Your task to perform on an android device: open app "eBay: The shopping marketplace" (install if not already installed) and go to login screen Image 0: 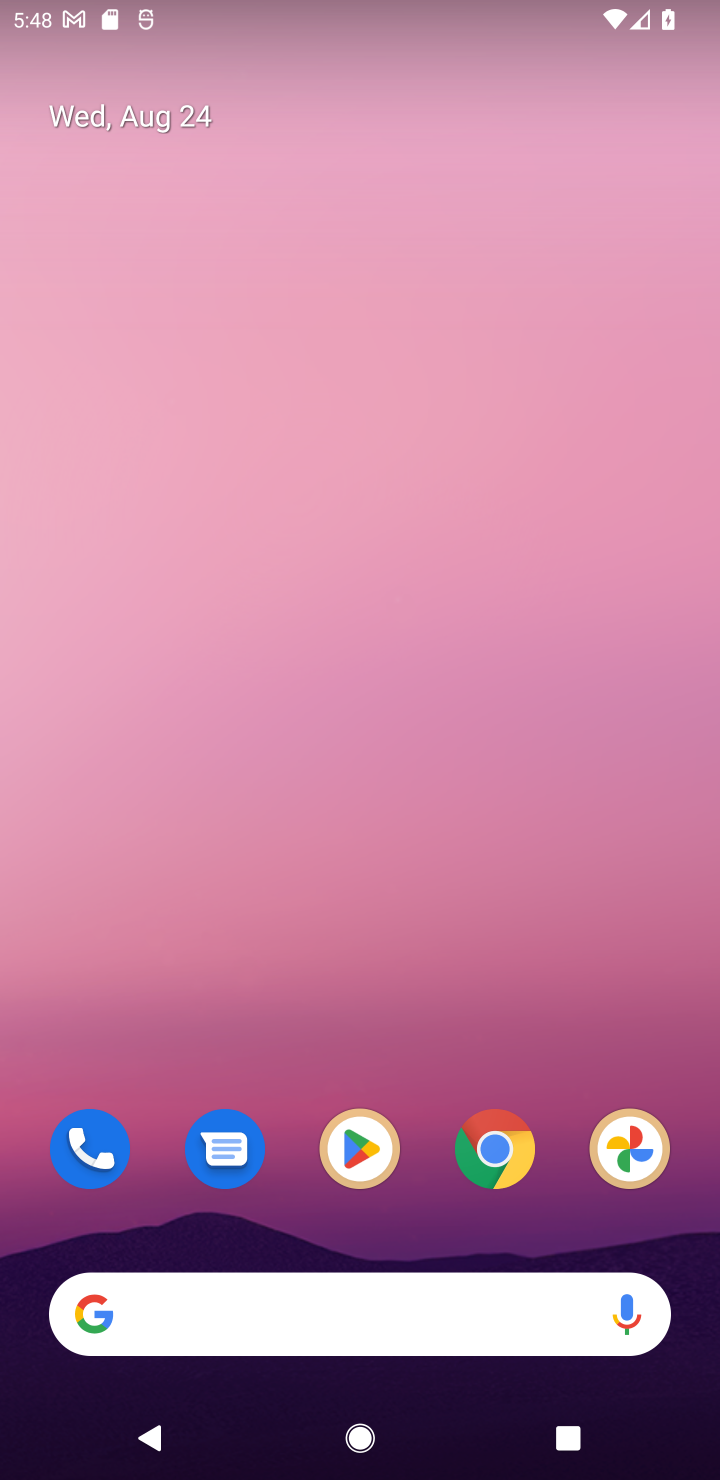
Step 0: click (358, 1152)
Your task to perform on an android device: open app "eBay: The shopping marketplace" (install if not already installed) and go to login screen Image 1: 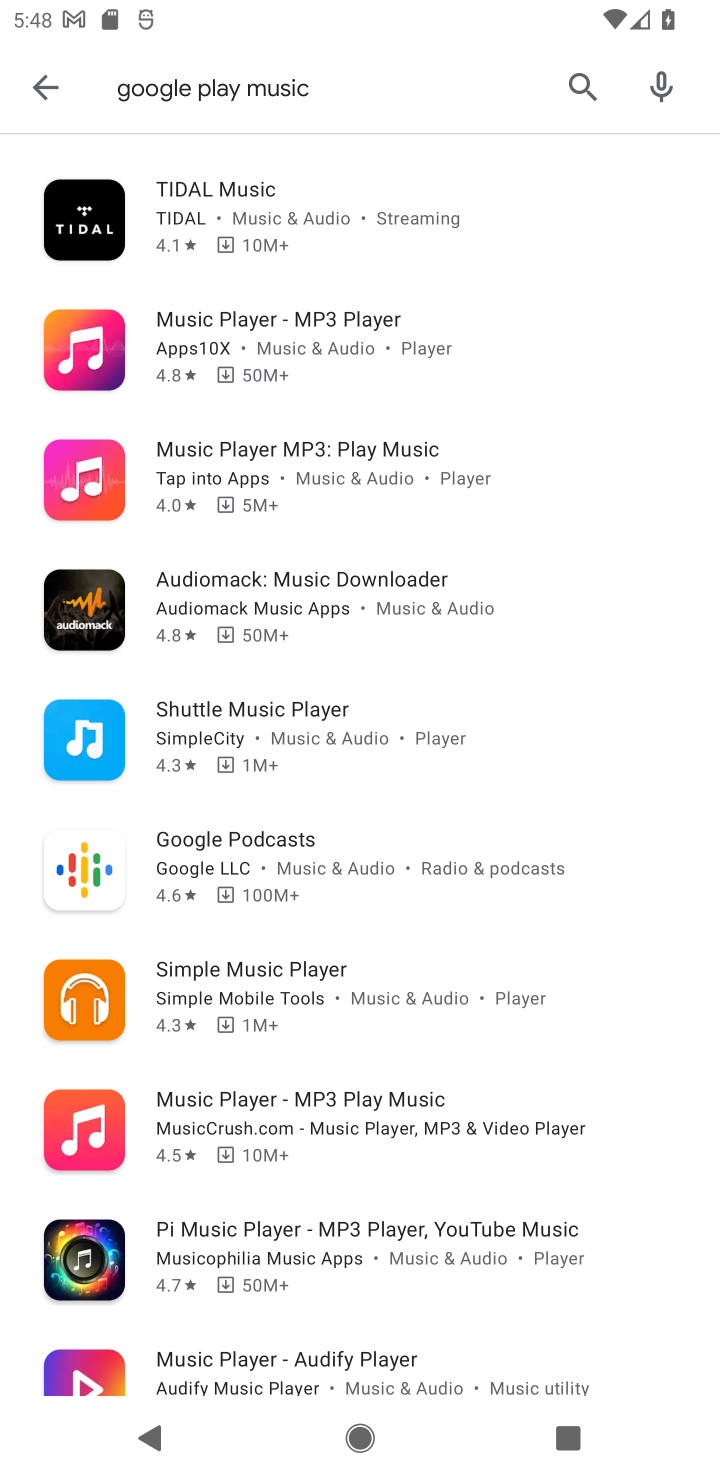
Step 1: click (577, 89)
Your task to perform on an android device: open app "eBay: The shopping marketplace" (install if not already installed) and go to login screen Image 2: 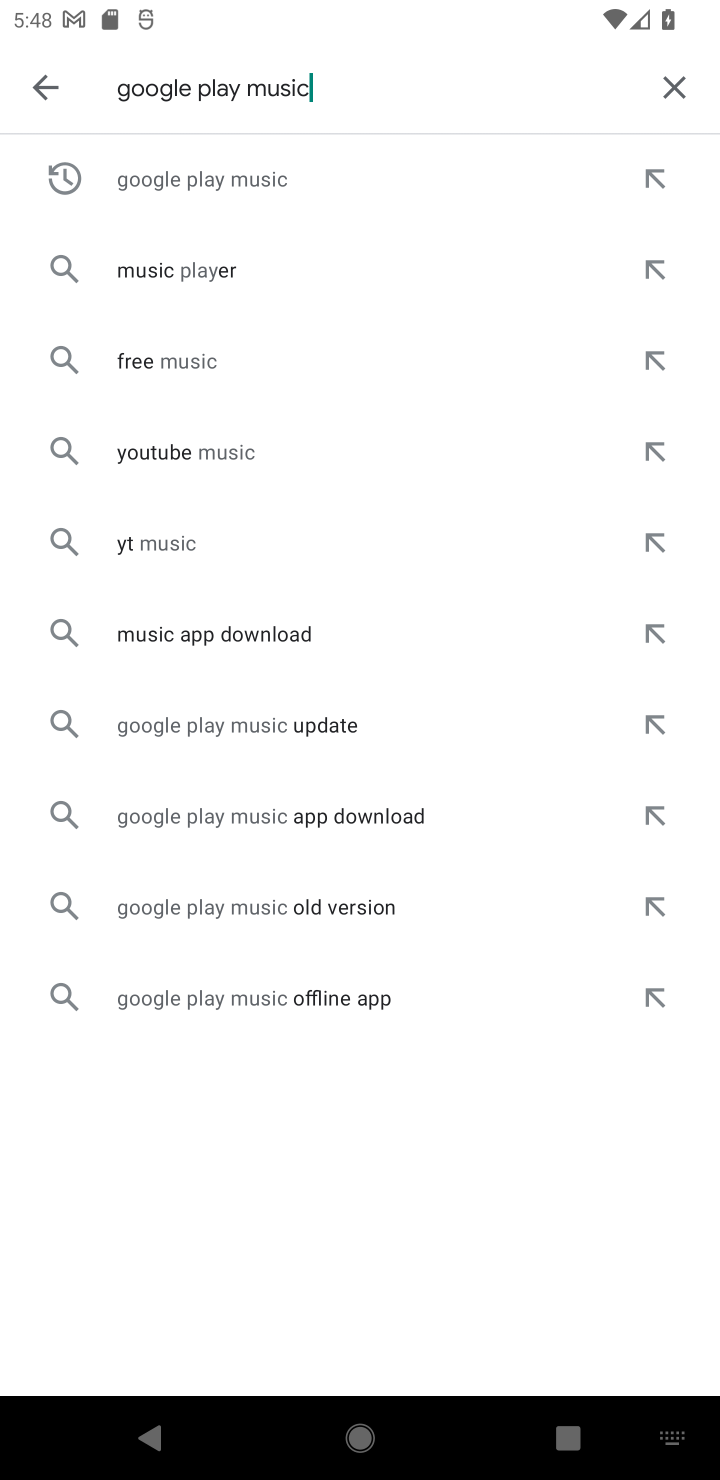
Step 2: click (670, 88)
Your task to perform on an android device: open app "eBay: The shopping marketplace" (install if not already installed) and go to login screen Image 3: 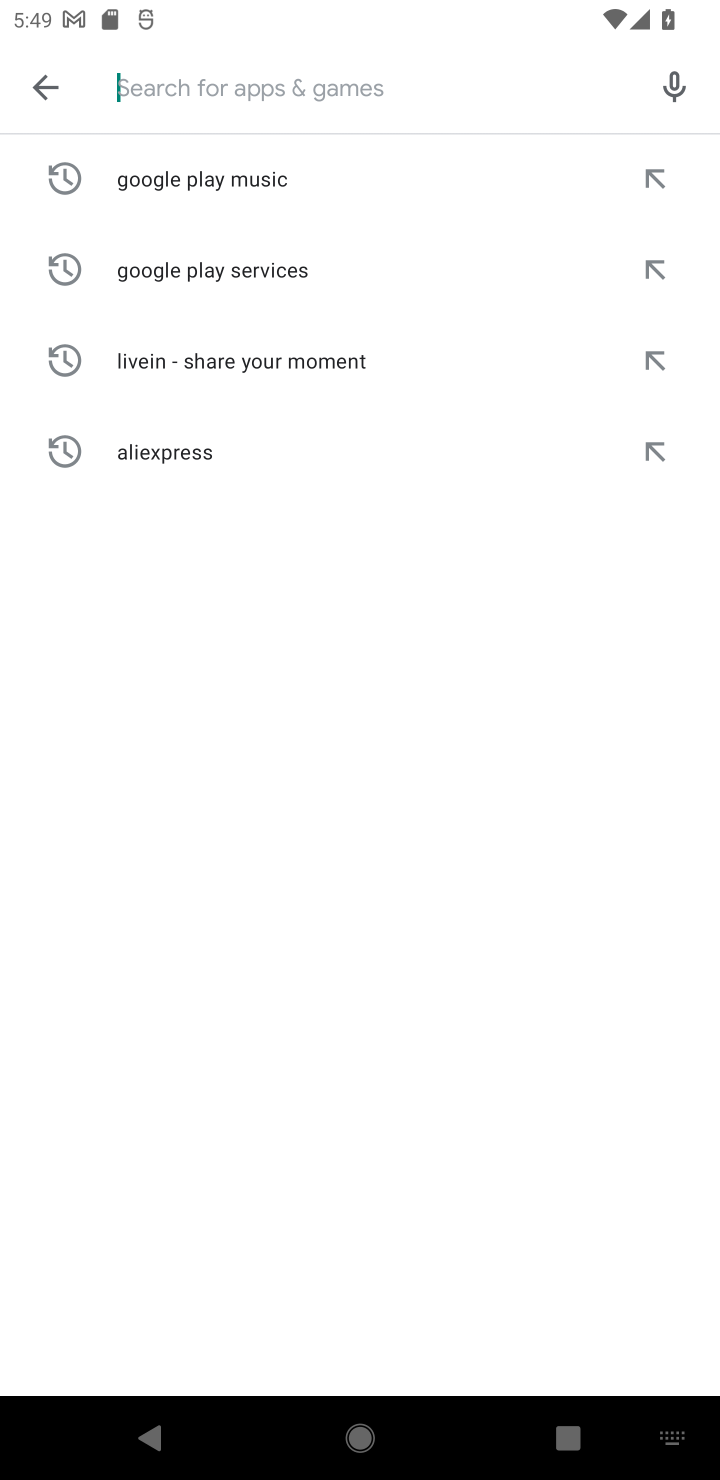
Step 3: type "eBay: The shopping marketplace"
Your task to perform on an android device: open app "eBay: The shopping marketplace" (install if not already installed) and go to login screen Image 4: 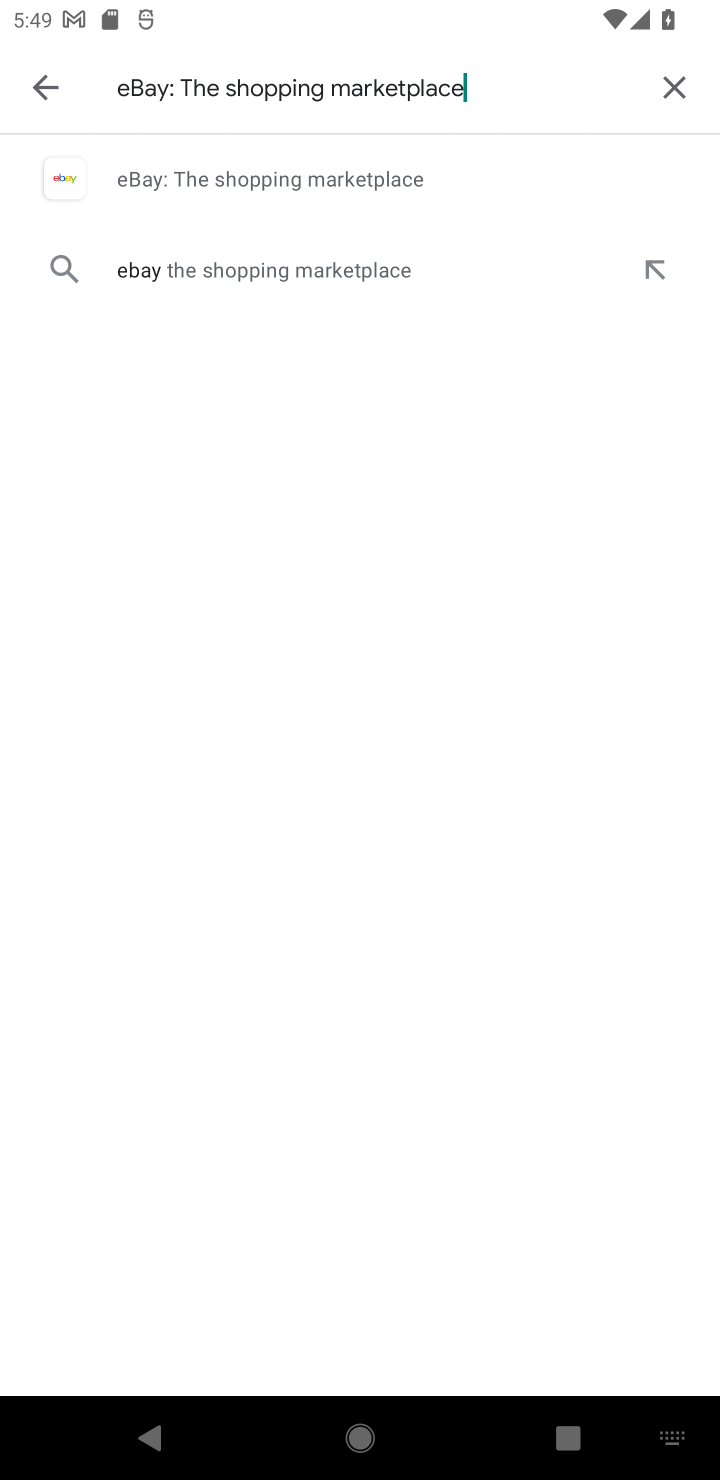
Step 4: click (253, 184)
Your task to perform on an android device: open app "eBay: The shopping marketplace" (install if not already installed) and go to login screen Image 5: 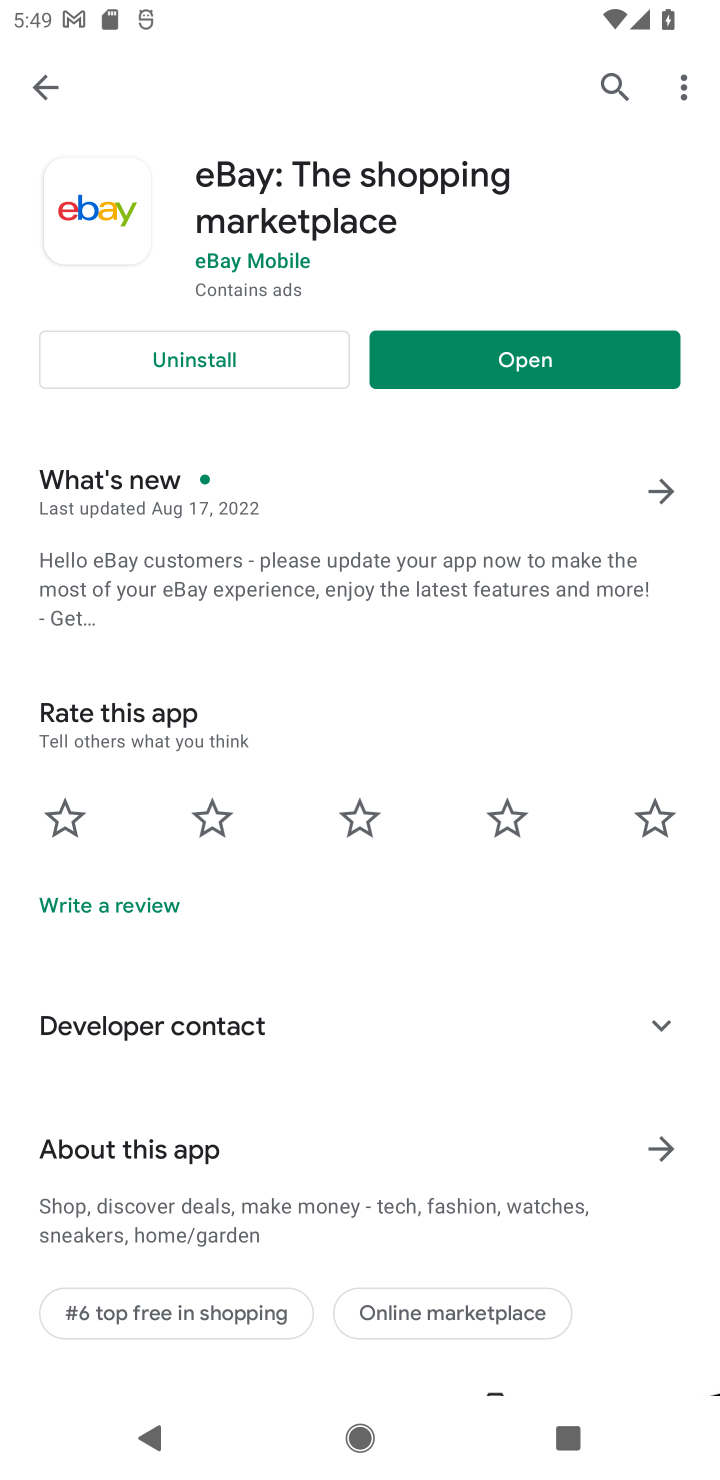
Step 5: click (512, 362)
Your task to perform on an android device: open app "eBay: The shopping marketplace" (install if not already installed) and go to login screen Image 6: 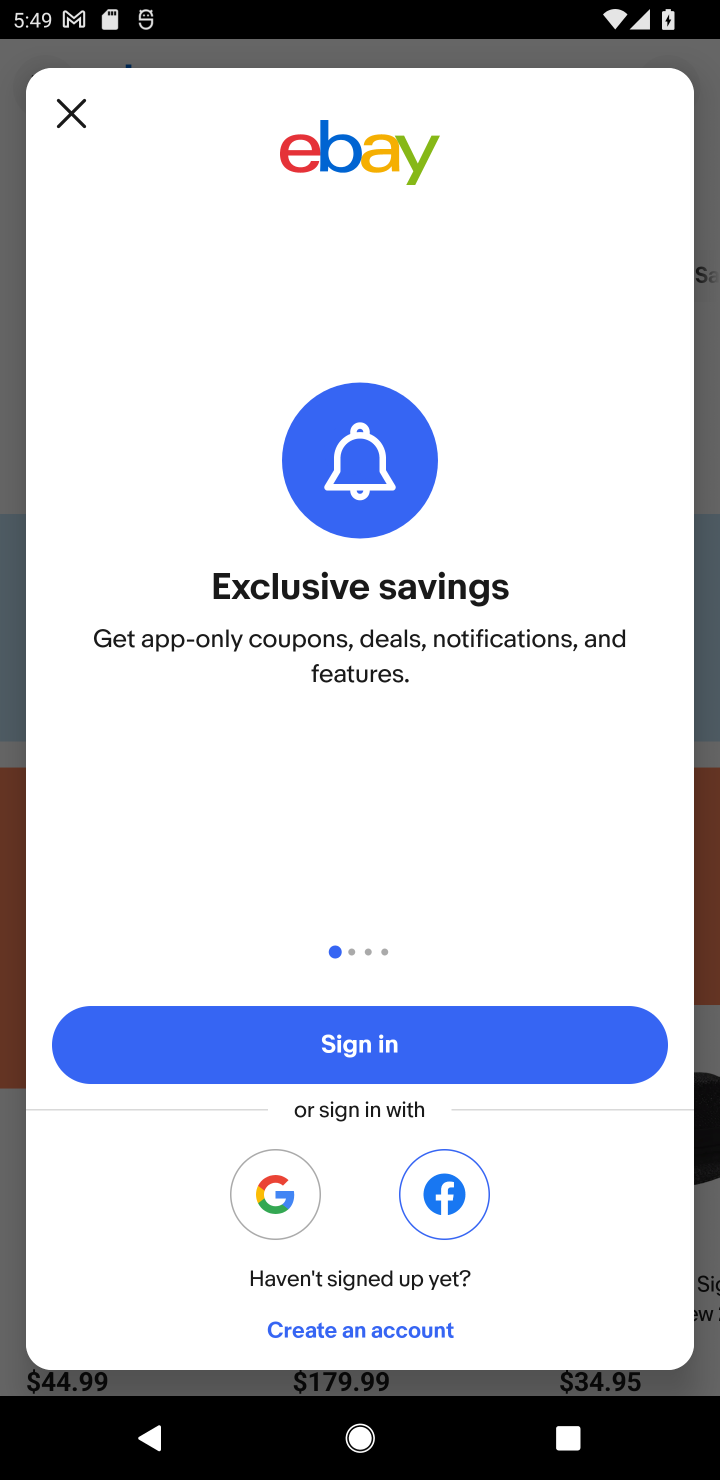
Step 6: task complete